Your task to perform on an android device: open app "YouTube Kids" Image 0: 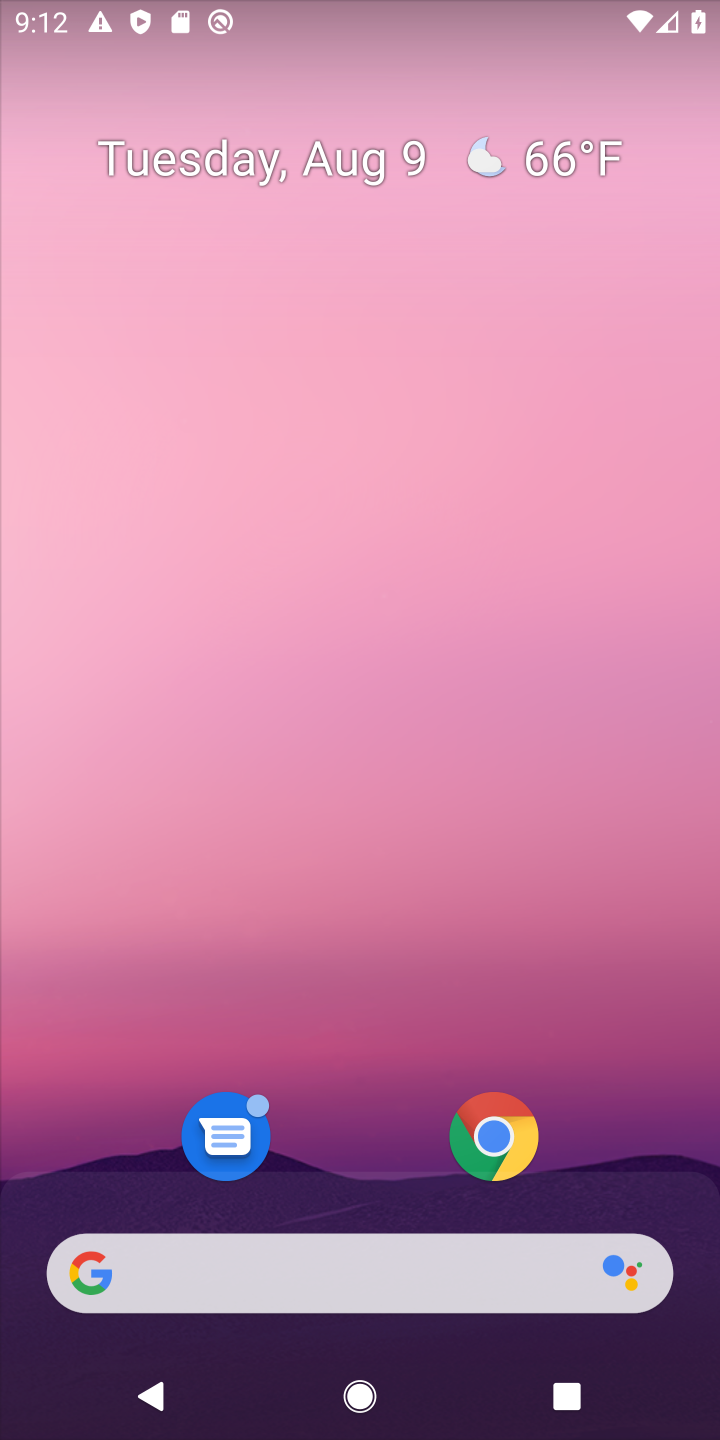
Step 0: press home button
Your task to perform on an android device: open app "YouTube Kids" Image 1: 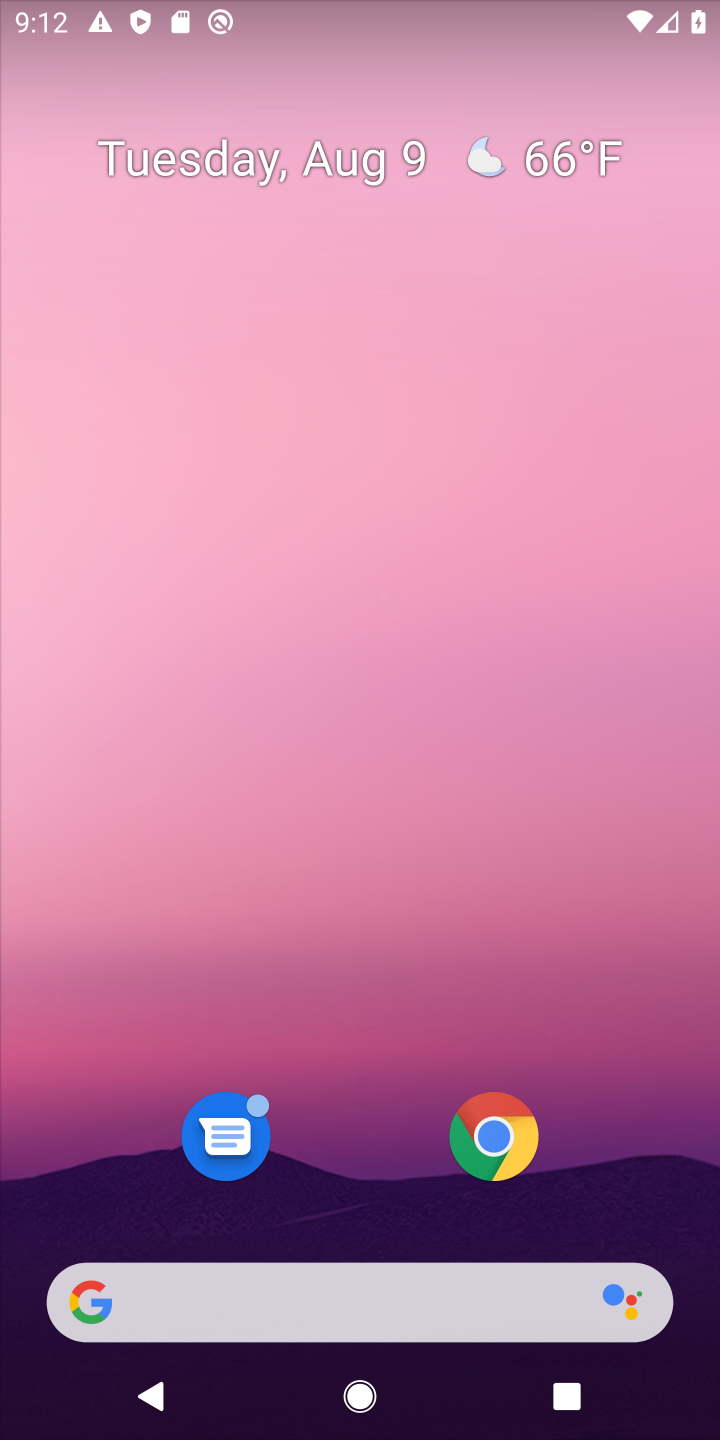
Step 1: drag from (381, 1151) to (462, 49)
Your task to perform on an android device: open app "YouTube Kids" Image 2: 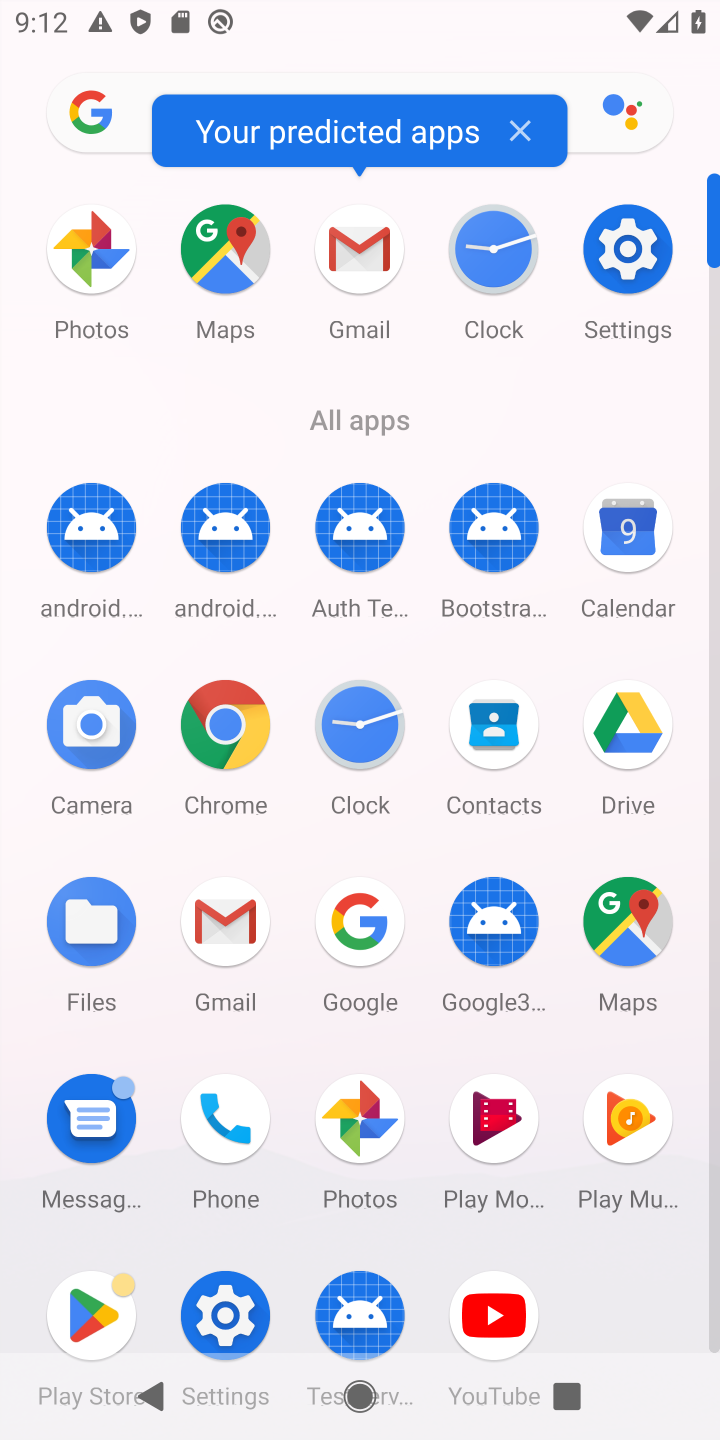
Step 2: click (83, 1309)
Your task to perform on an android device: open app "YouTube Kids" Image 3: 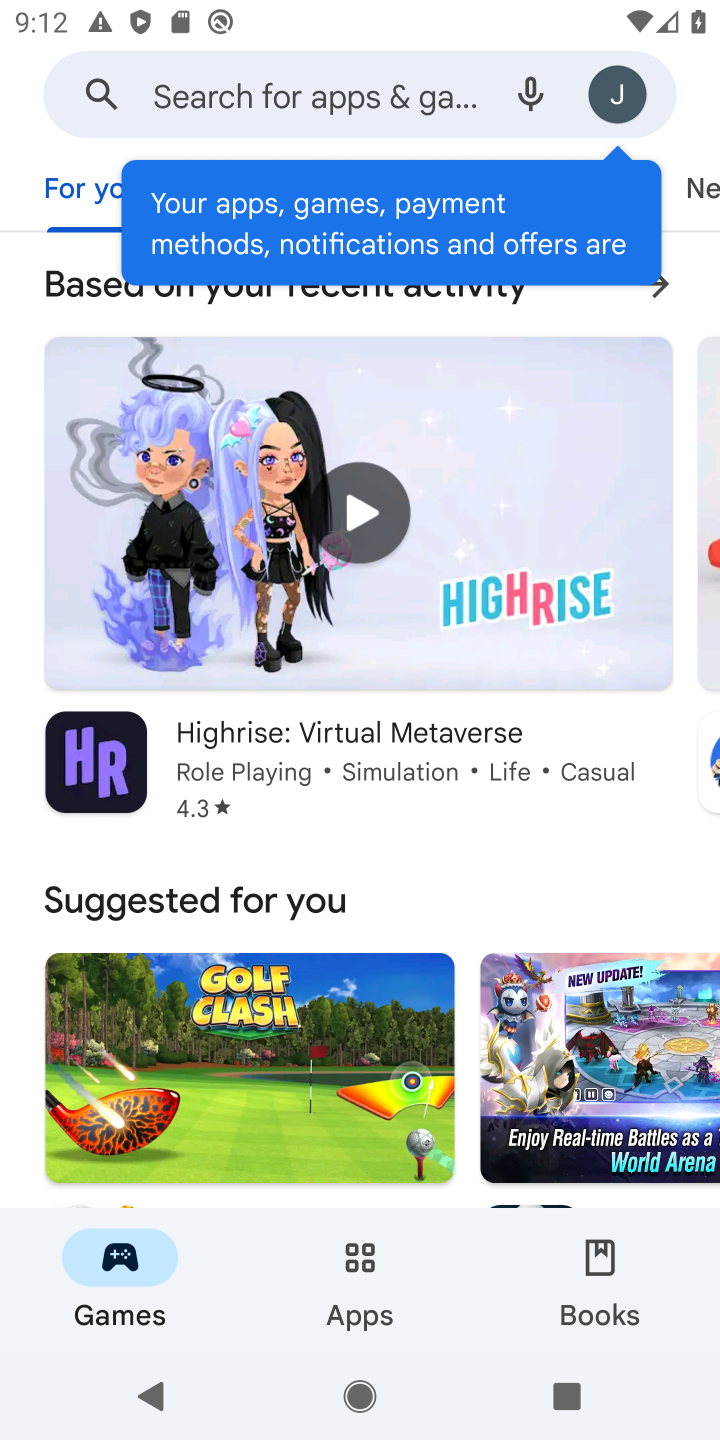
Step 3: click (249, 82)
Your task to perform on an android device: open app "YouTube Kids" Image 4: 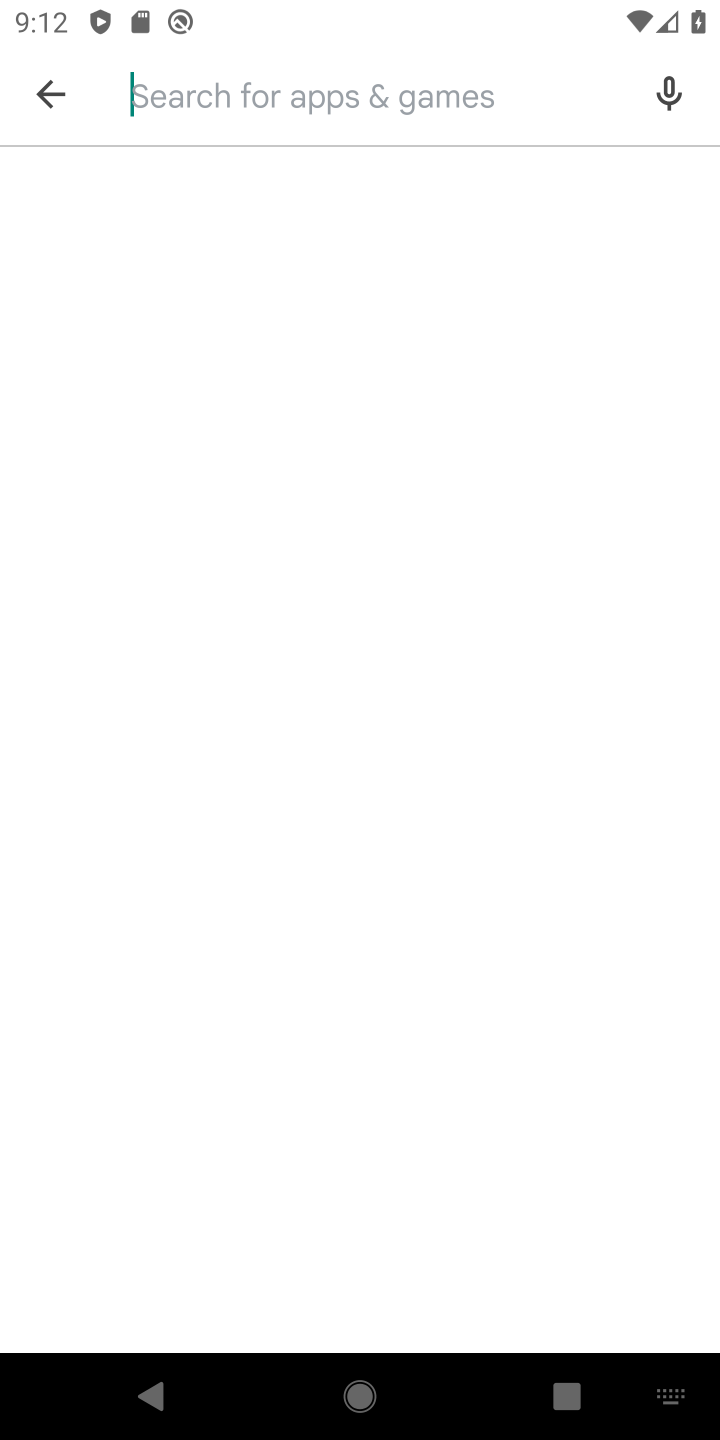
Step 4: type "youtube kids"
Your task to perform on an android device: open app "YouTube Kids" Image 5: 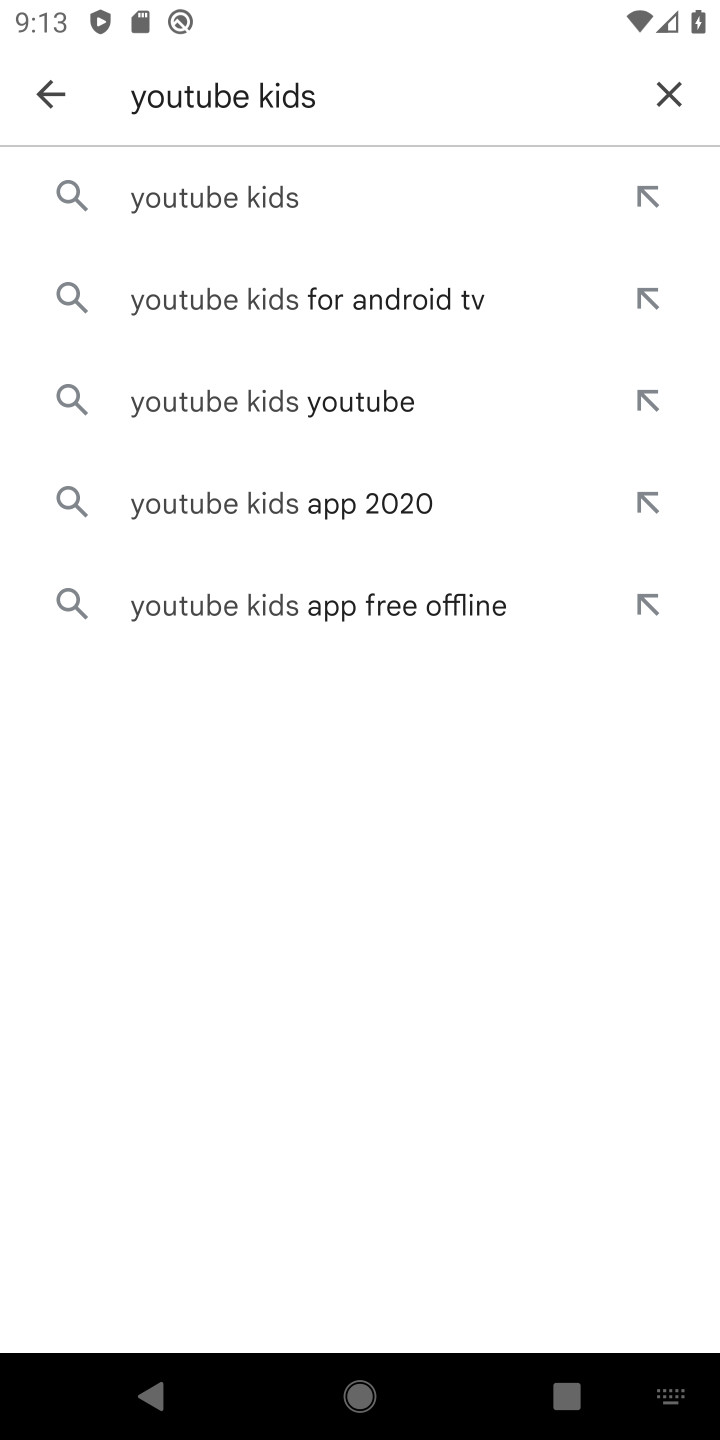
Step 5: click (320, 186)
Your task to perform on an android device: open app "YouTube Kids" Image 6: 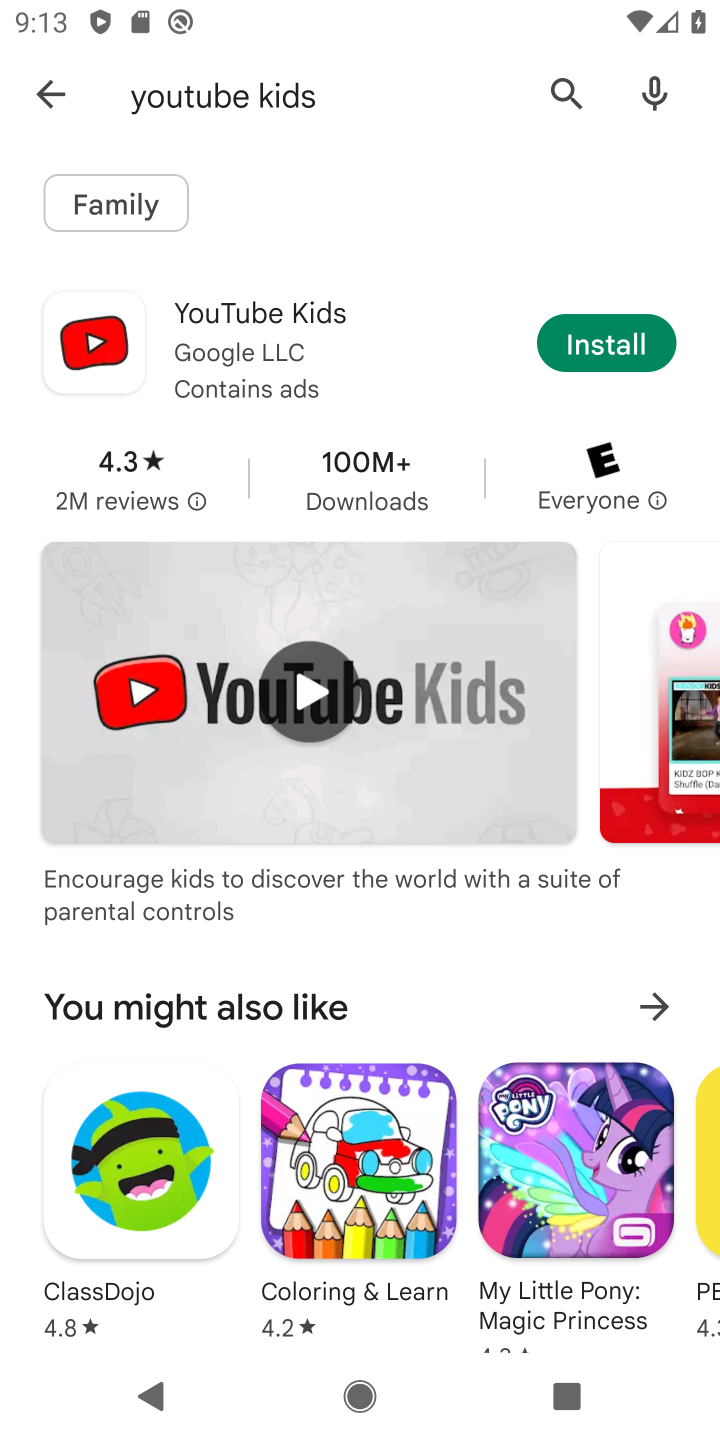
Step 6: task complete